Your task to perform on an android device: check out phone information Image 0: 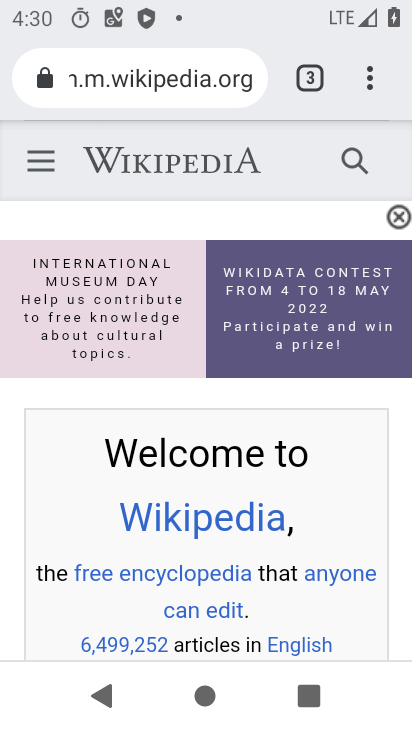
Step 0: press home button
Your task to perform on an android device: check out phone information Image 1: 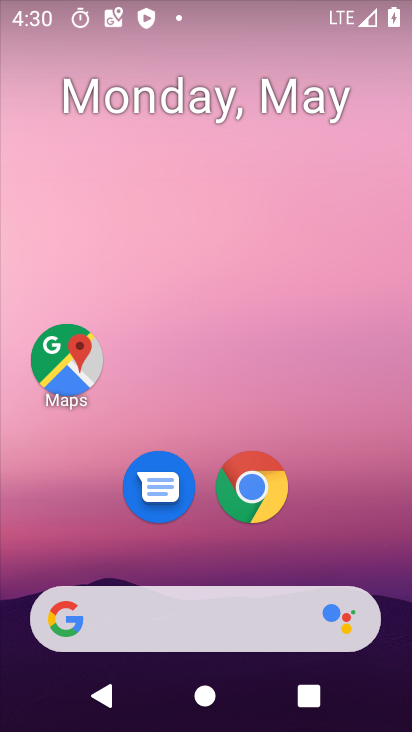
Step 1: drag from (340, 550) to (280, 13)
Your task to perform on an android device: check out phone information Image 2: 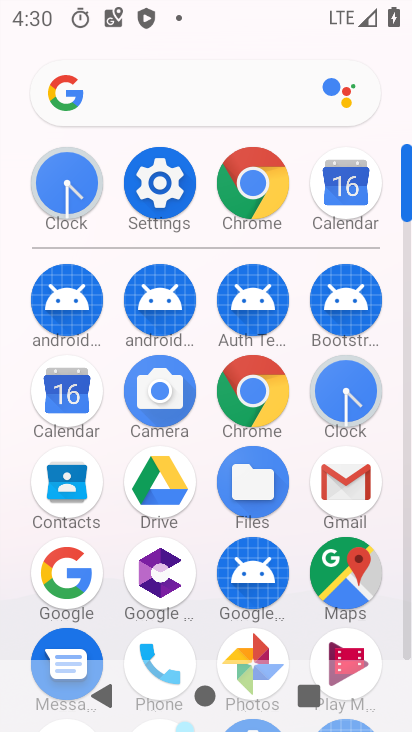
Step 2: click (148, 158)
Your task to perform on an android device: check out phone information Image 3: 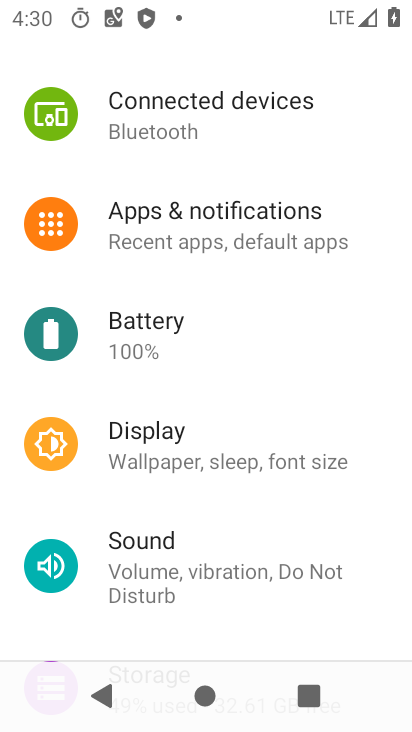
Step 3: drag from (278, 605) to (264, 2)
Your task to perform on an android device: check out phone information Image 4: 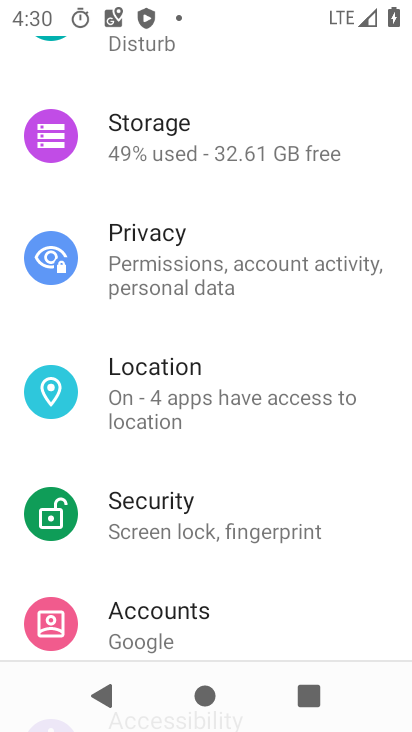
Step 4: drag from (240, 496) to (192, 1)
Your task to perform on an android device: check out phone information Image 5: 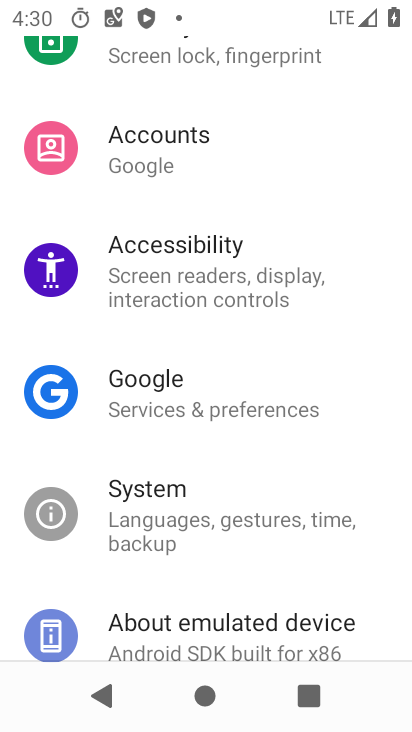
Step 5: drag from (196, 569) to (204, 124)
Your task to perform on an android device: check out phone information Image 6: 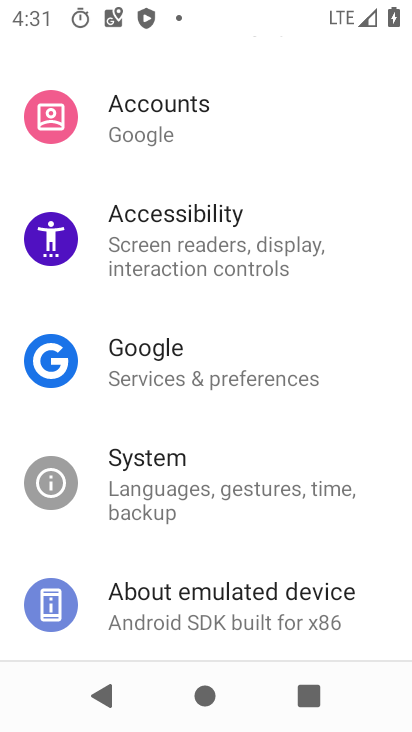
Step 6: click (188, 611)
Your task to perform on an android device: check out phone information Image 7: 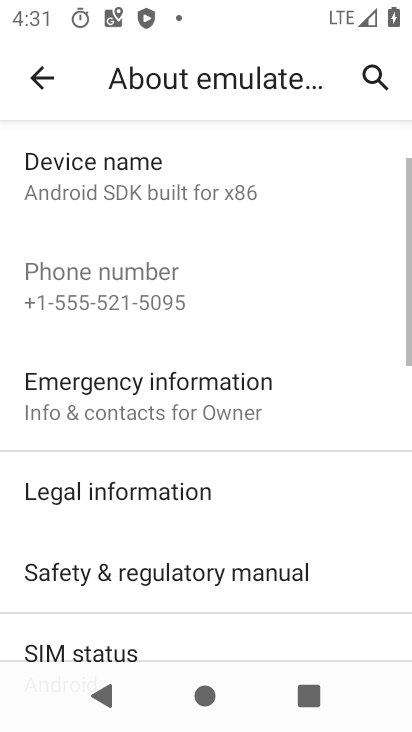
Step 7: task complete